Your task to perform on an android device: allow notifications from all sites in the chrome app Image 0: 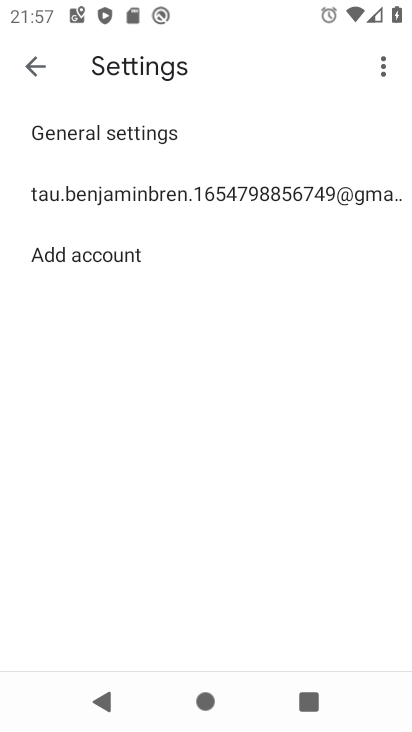
Step 0: press home button
Your task to perform on an android device: allow notifications from all sites in the chrome app Image 1: 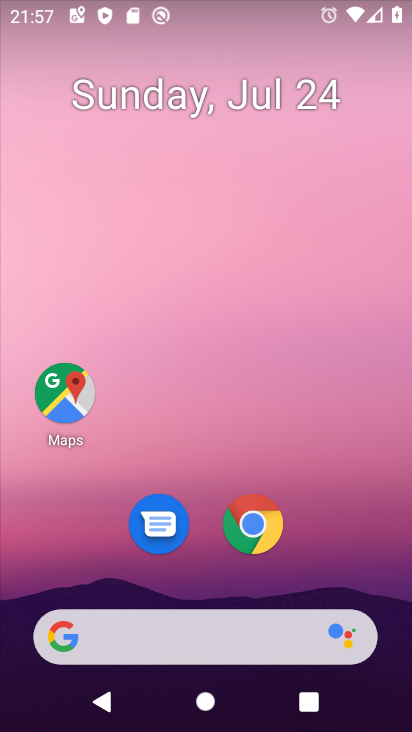
Step 1: click (256, 536)
Your task to perform on an android device: allow notifications from all sites in the chrome app Image 2: 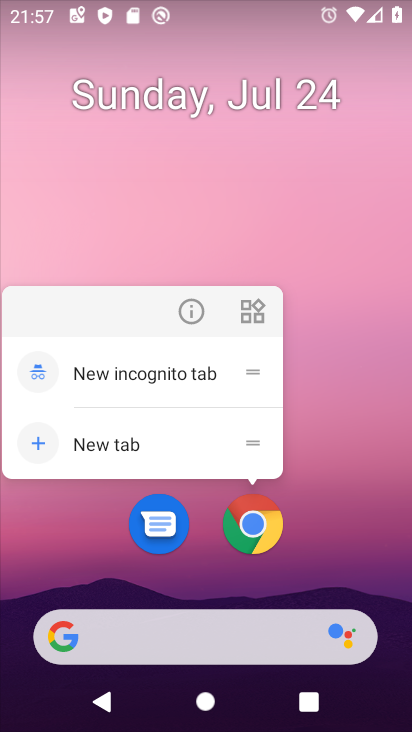
Step 2: click (256, 527)
Your task to perform on an android device: allow notifications from all sites in the chrome app Image 3: 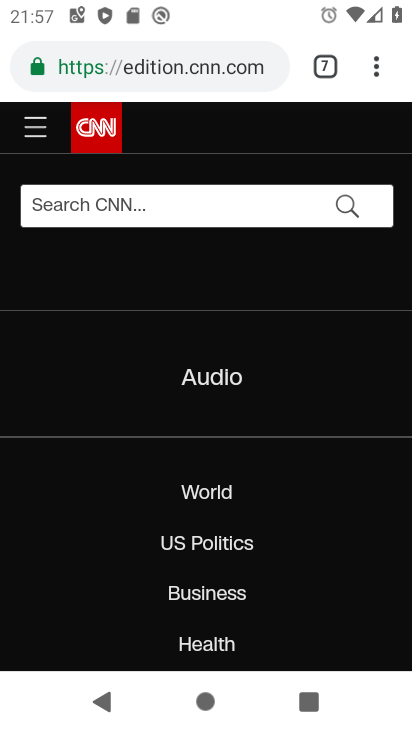
Step 3: drag from (373, 68) to (184, 529)
Your task to perform on an android device: allow notifications from all sites in the chrome app Image 4: 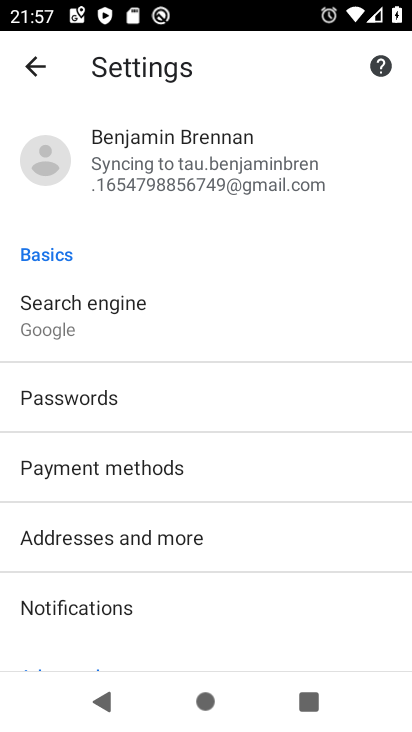
Step 4: drag from (71, 545) to (153, 358)
Your task to perform on an android device: allow notifications from all sites in the chrome app Image 5: 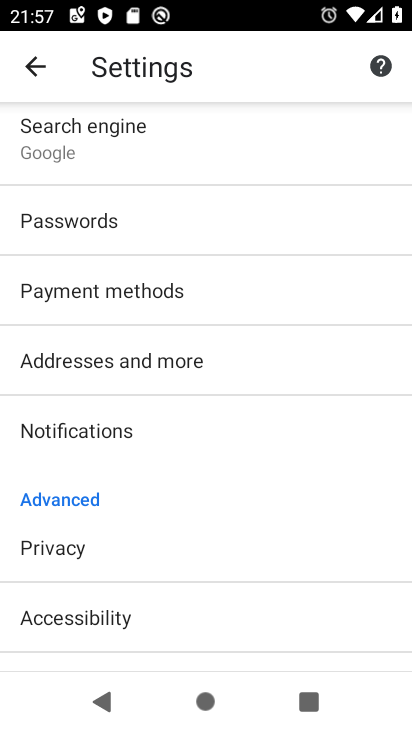
Step 5: drag from (123, 555) to (270, 203)
Your task to perform on an android device: allow notifications from all sites in the chrome app Image 6: 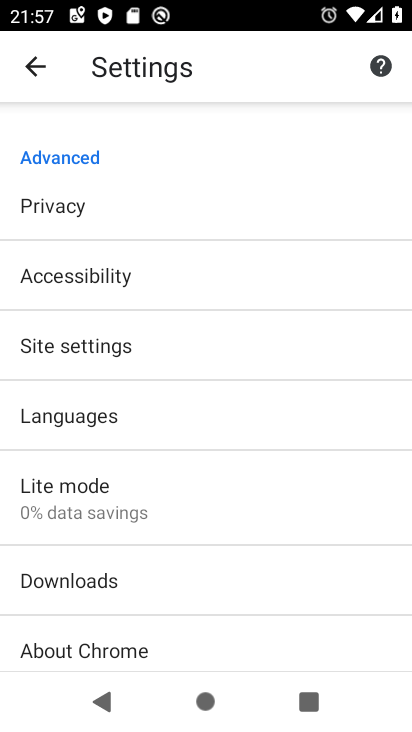
Step 6: click (80, 351)
Your task to perform on an android device: allow notifications from all sites in the chrome app Image 7: 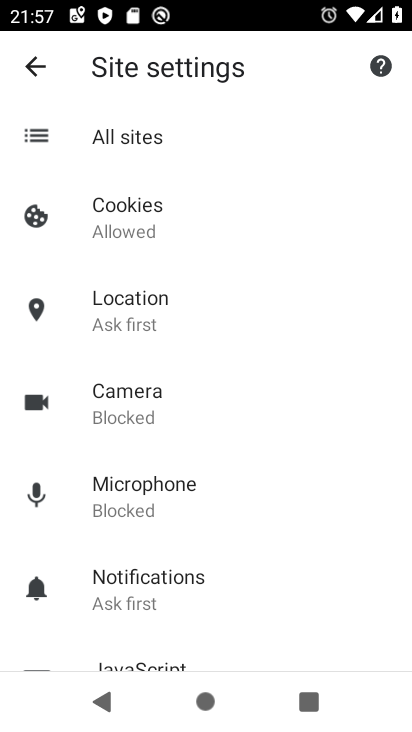
Step 7: drag from (175, 516) to (298, 170)
Your task to perform on an android device: allow notifications from all sites in the chrome app Image 8: 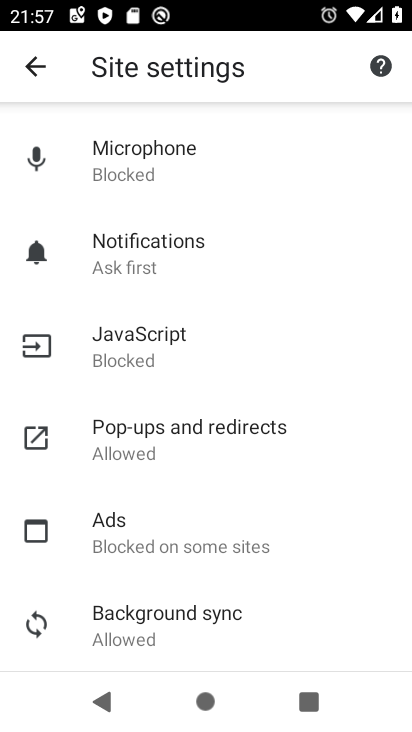
Step 8: click (163, 250)
Your task to perform on an android device: allow notifications from all sites in the chrome app Image 9: 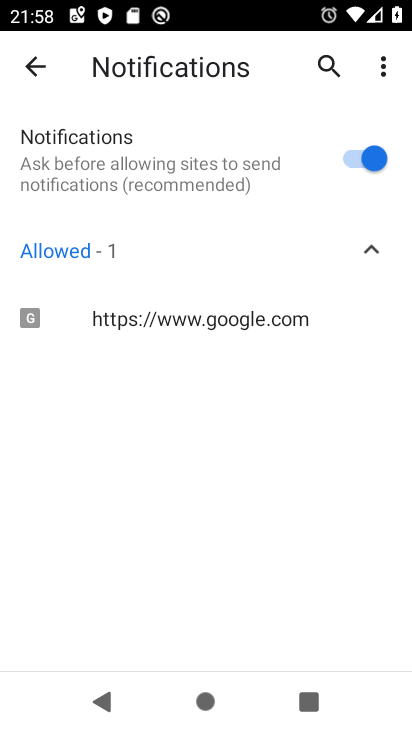
Step 9: task complete